Your task to perform on an android device: Go to Wikipedia Image 0: 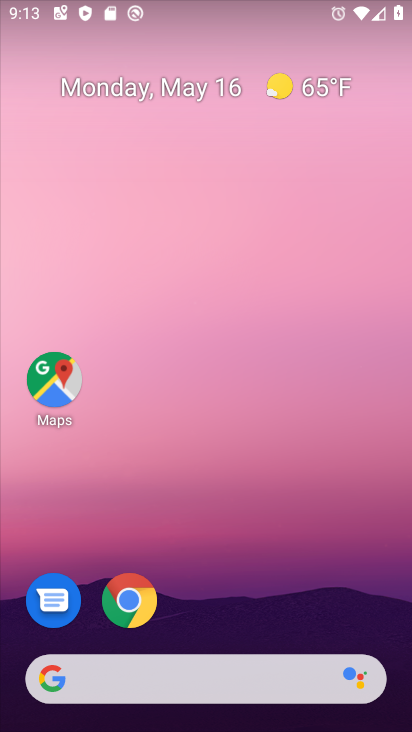
Step 0: drag from (222, 633) to (258, 127)
Your task to perform on an android device: Go to Wikipedia Image 1: 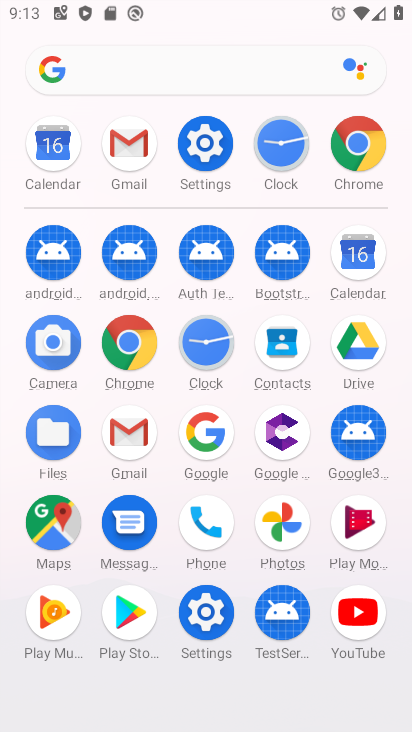
Step 1: click (240, 67)
Your task to perform on an android device: Go to Wikipedia Image 2: 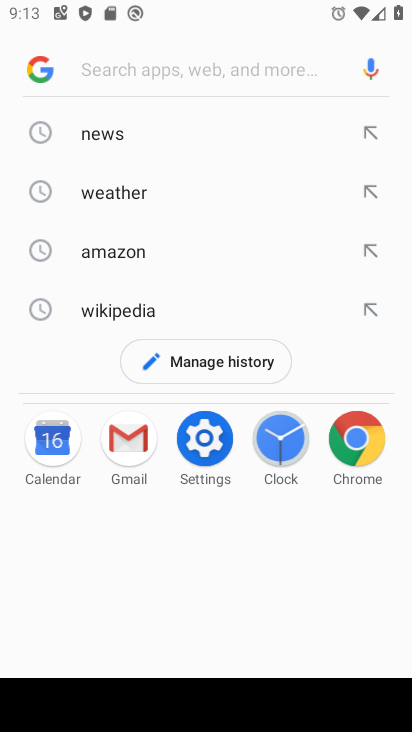
Step 2: type "wikipedia"
Your task to perform on an android device: Go to Wikipedia Image 3: 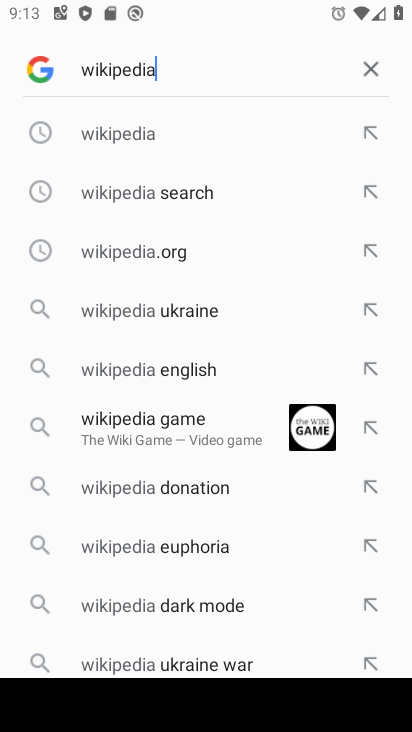
Step 3: click (167, 121)
Your task to perform on an android device: Go to Wikipedia Image 4: 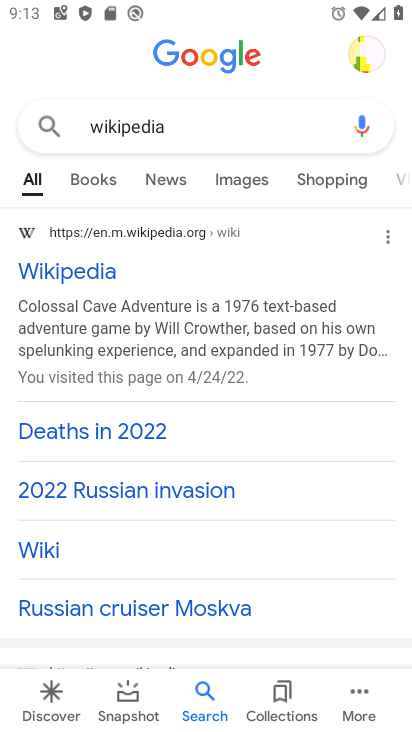
Step 4: click (69, 277)
Your task to perform on an android device: Go to Wikipedia Image 5: 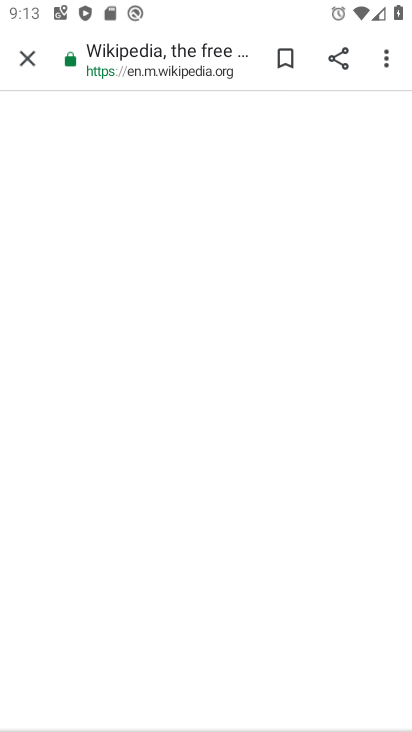
Step 5: task complete